Your task to perform on an android device: Go to internet settings Image 0: 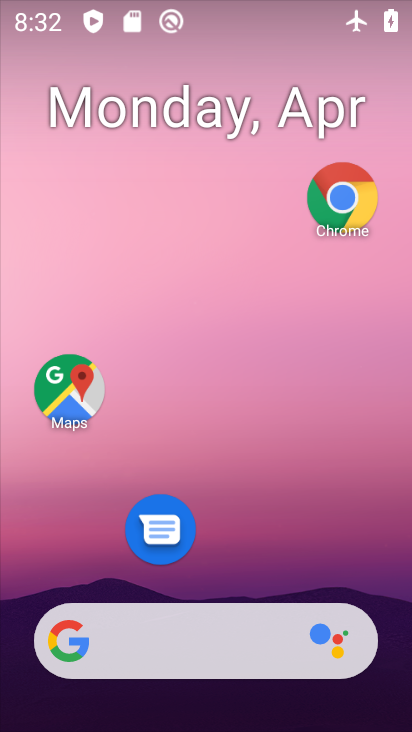
Step 0: drag from (168, 509) to (255, 54)
Your task to perform on an android device: Go to internet settings Image 1: 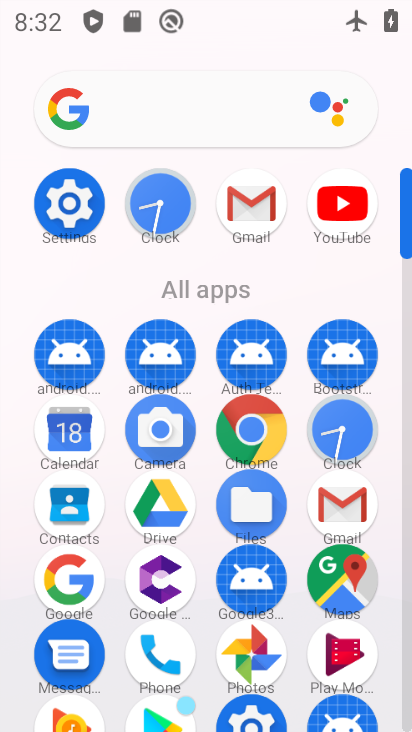
Step 1: click (82, 212)
Your task to perform on an android device: Go to internet settings Image 2: 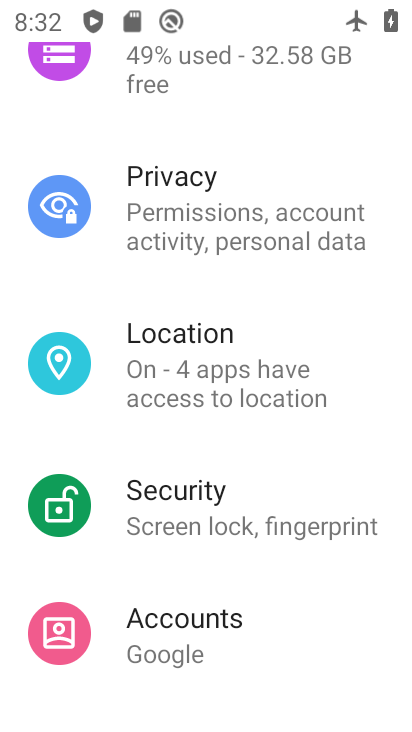
Step 2: drag from (237, 143) to (206, 690)
Your task to perform on an android device: Go to internet settings Image 3: 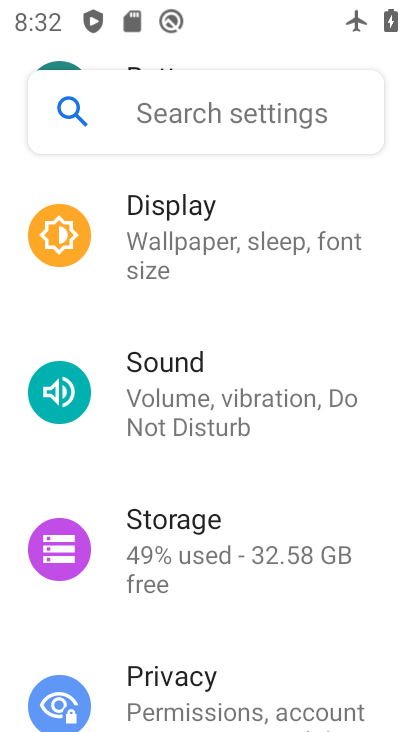
Step 3: drag from (244, 288) to (167, 731)
Your task to perform on an android device: Go to internet settings Image 4: 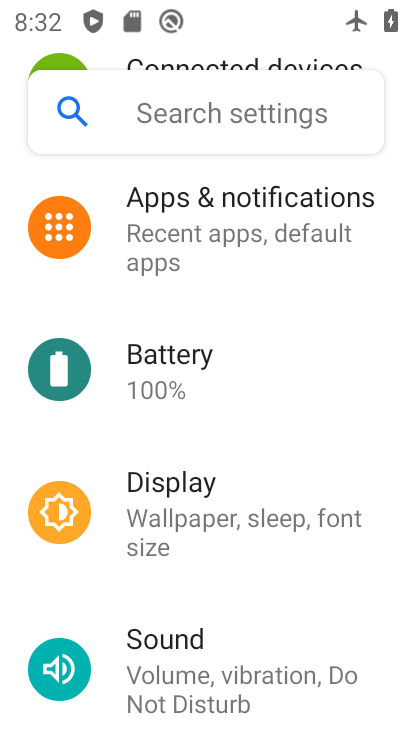
Step 4: drag from (200, 375) to (199, 731)
Your task to perform on an android device: Go to internet settings Image 5: 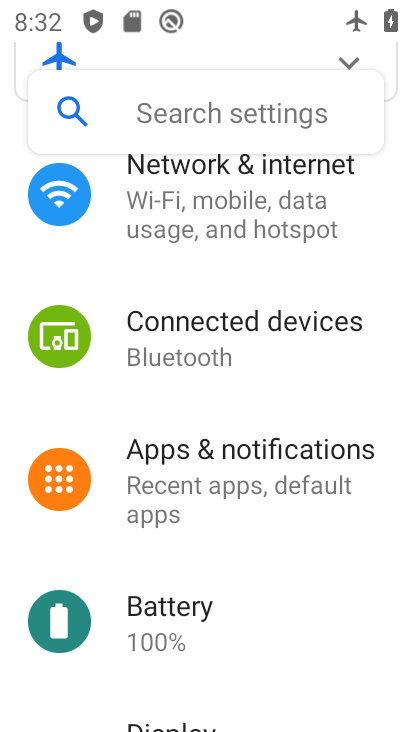
Step 5: click (220, 208)
Your task to perform on an android device: Go to internet settings Image 6: 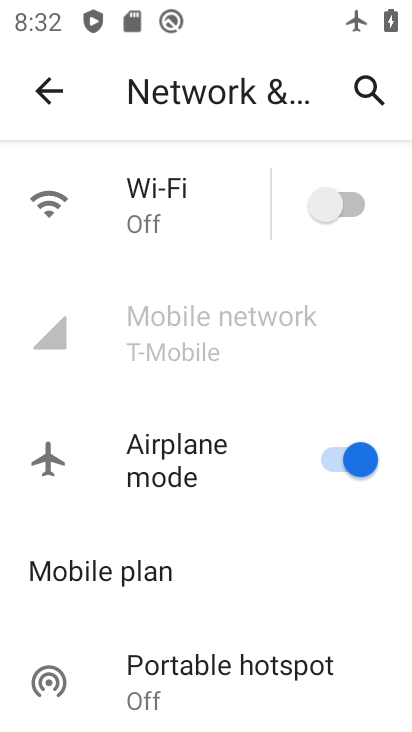
Step 6: task complete